Your task to perform on an android device: turn on sleep mode Image 0: 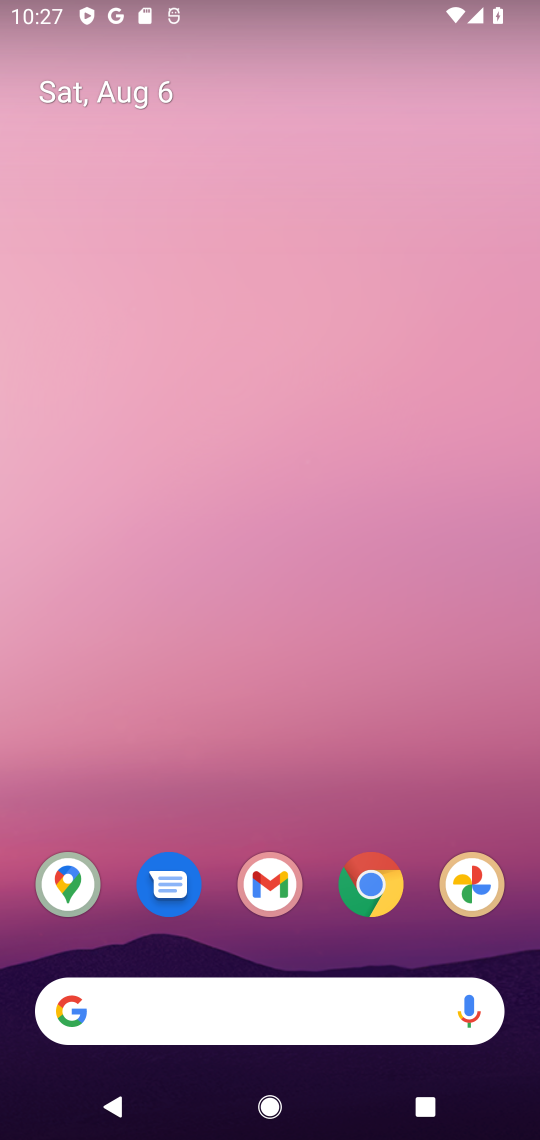
Step 0: drag from (403, 778) to (399, 99)
Your task to perform on an android device: turn on sleep mode Image 1: 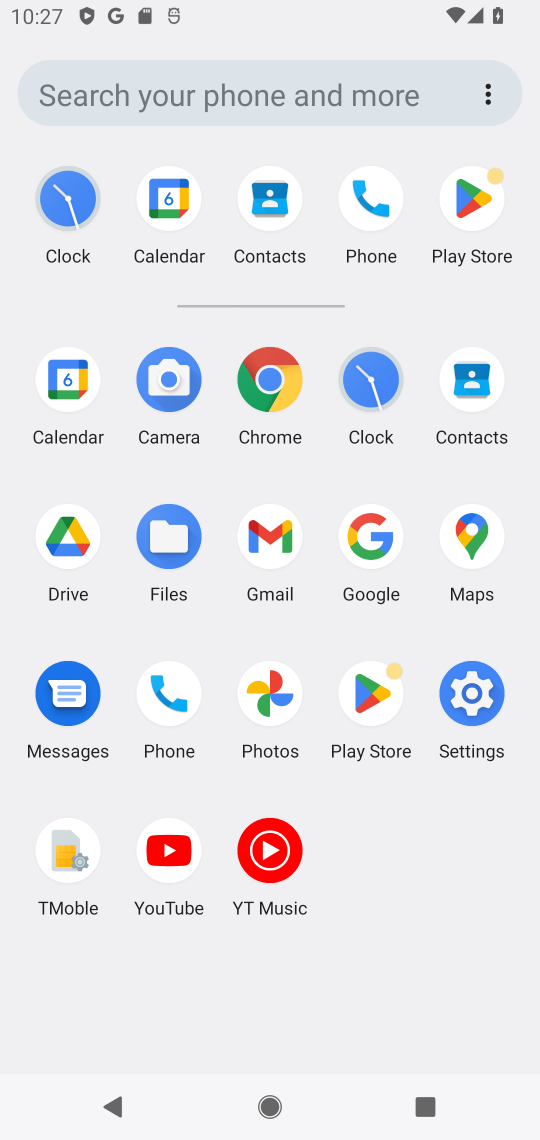
Step 1: click (470, 698)
Your task to perform on an android device: turn on sleep mode Image 2: 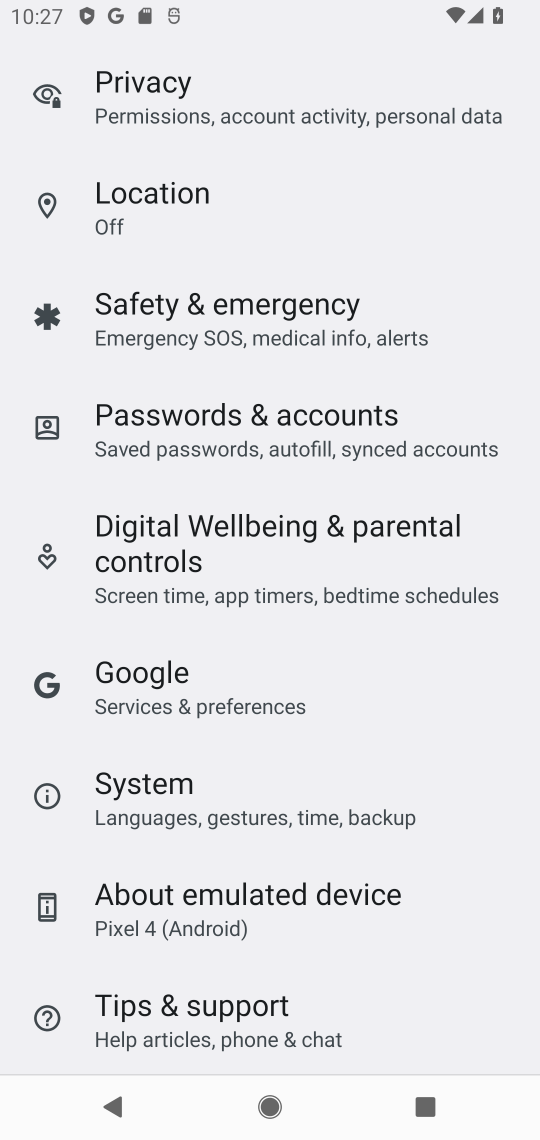
Step 2: drag from (461, 316) to (470, 882)
Your task to perform on an android device: turn on sleep mode Image 3: 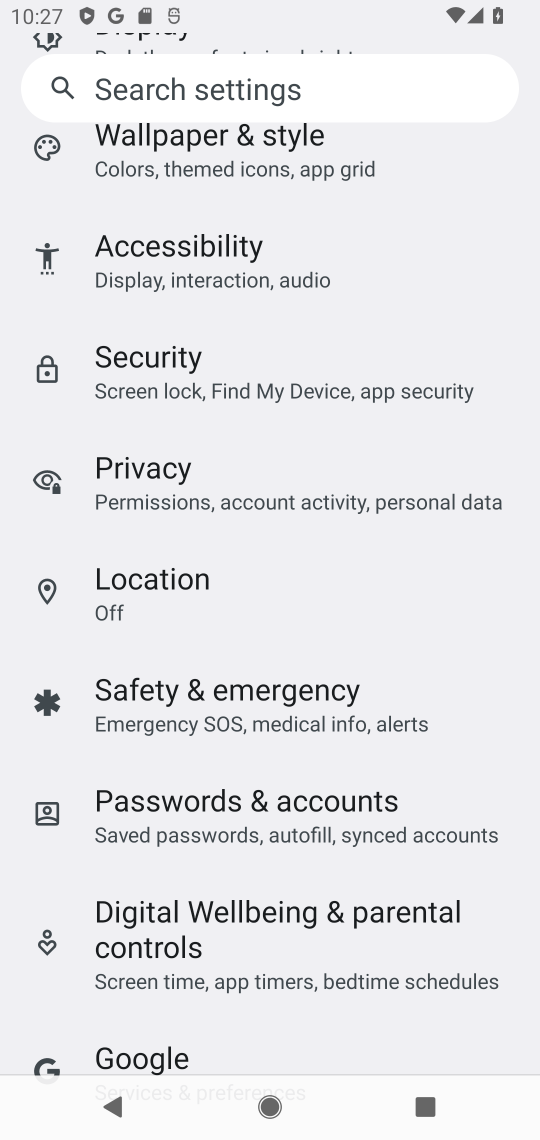
Step 3: drag from (431, 368) to (452, 764)
Your task to perform on an android device: turn on sleep mode Image 4: 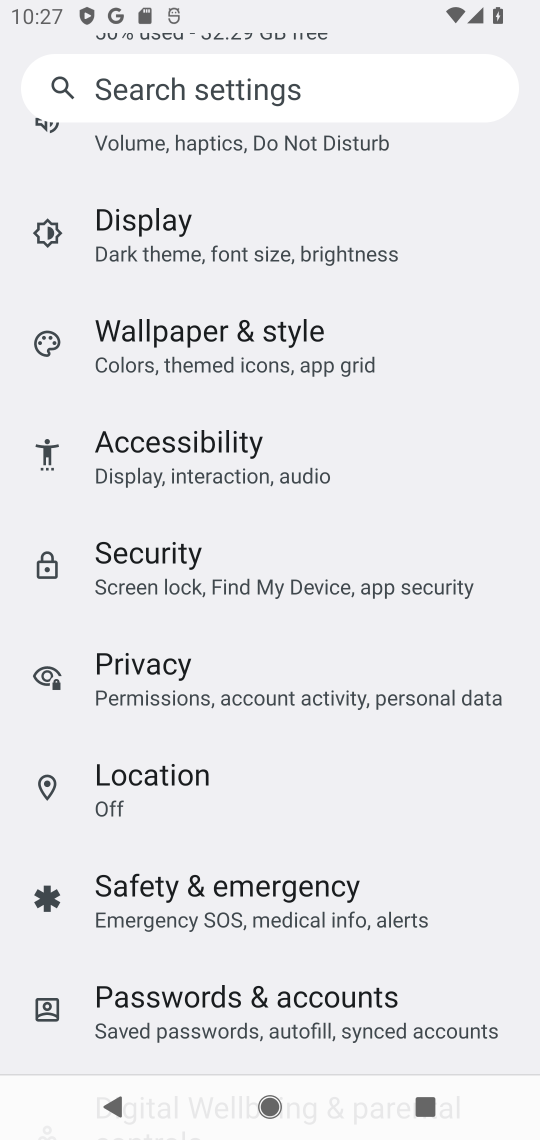
Step 4: drag from (431, 279) to (455, 720)
Your task to perform on an android device: turn on sleep mode Image 5: 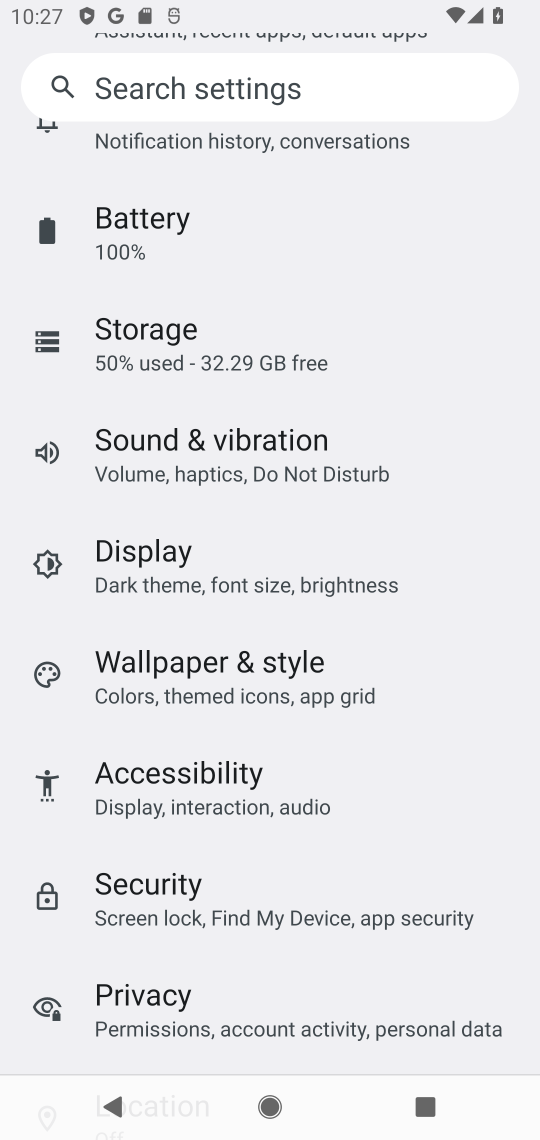
Step 5: click (176, 566)
Your task to perform on an android device: turn on sleep mode Image 6: 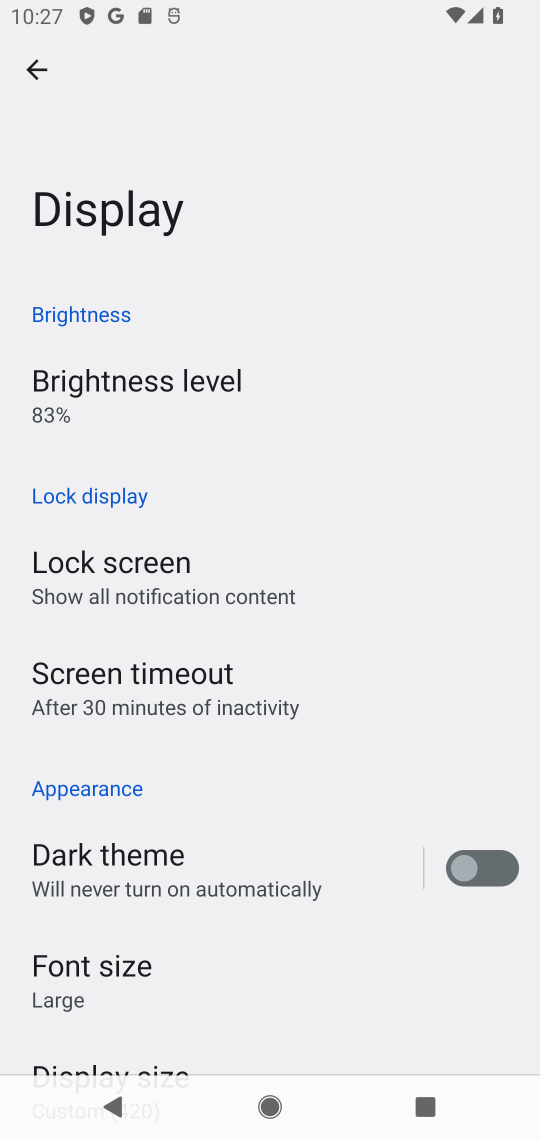
Step 6: task complete